Your task to perform on an android device: create a new album in the google photos Image 0: 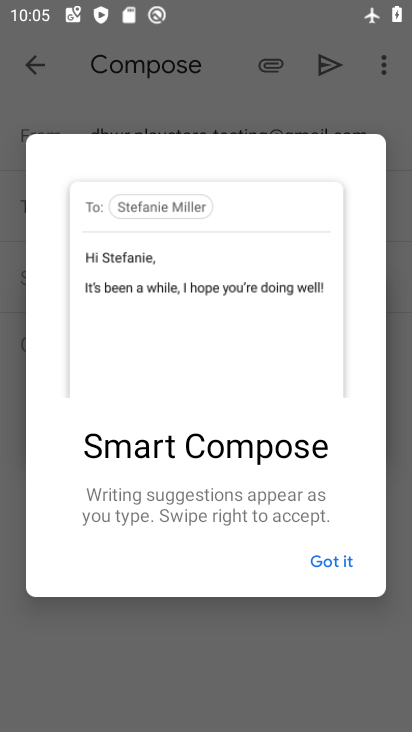
Step 0: press home button
Your task to perform on an android device: create a new album in the google photos Image 1: 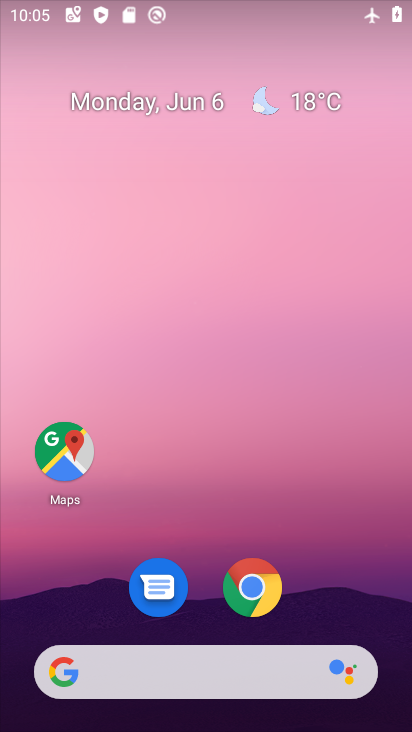
Step 1: drag from (314, 520) to (322, 107)
Your task to perform on an android device: create a new album in the google photos Image 2: 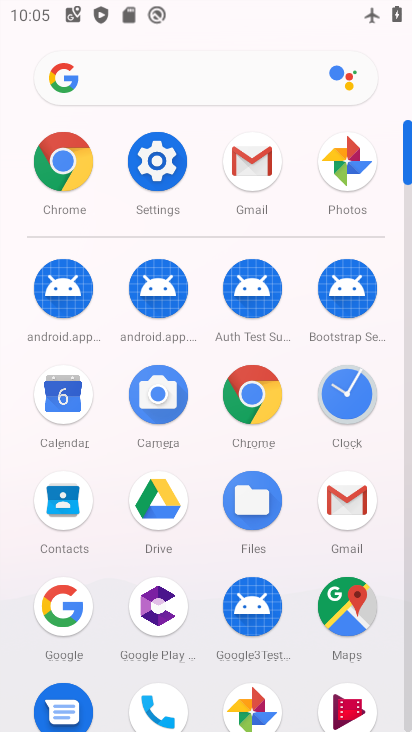
Step 2: click (349, 167)
Your task to perform on an android device: create a new album in the google photos Image 3: 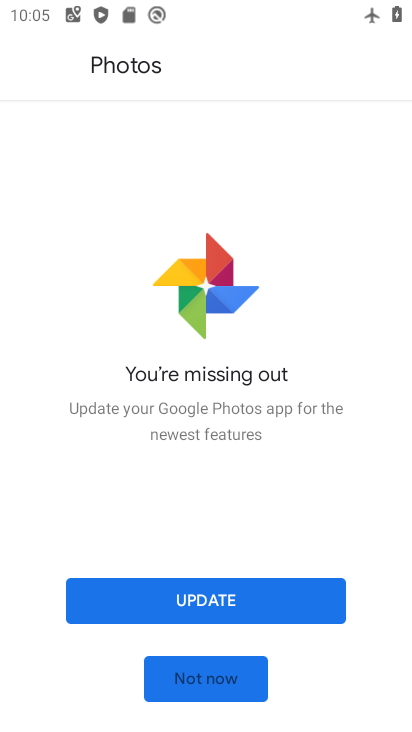
Step 3: click (190, 613)
Your task to perform on an android device: create a new album in the google photos Image 4: 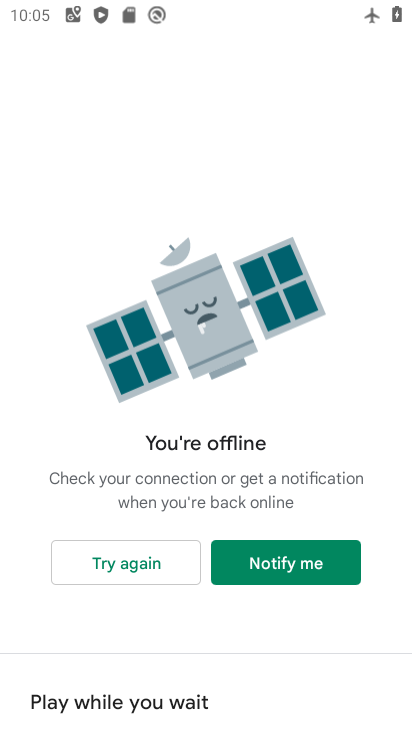
Step 4: task complete